Your task to perform on an android device: Check out the new ikea catalog. Image 0: 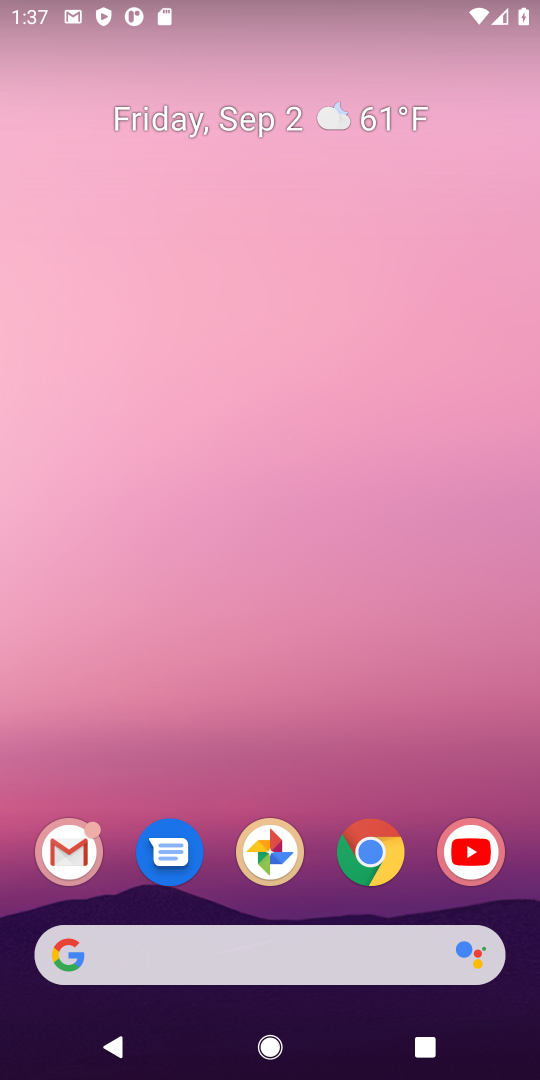
Step 0: click (289, 115)
Your task to perform on an android device: Check out the new ikea catalog. Image 1: 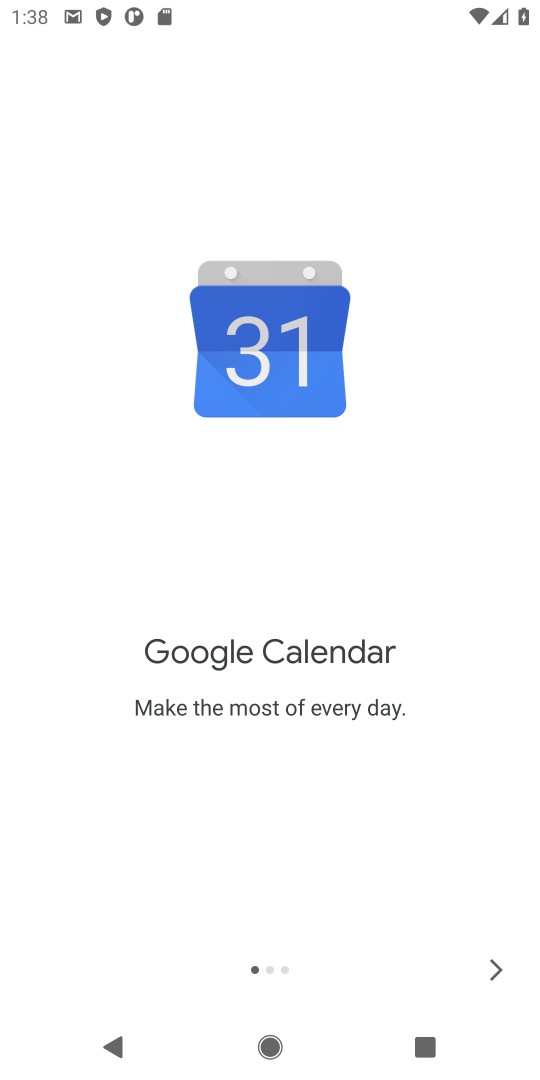
Step 1: click (480, 956)
Your task to perform on an android device: Check out the new ikea catalog. Image 2: 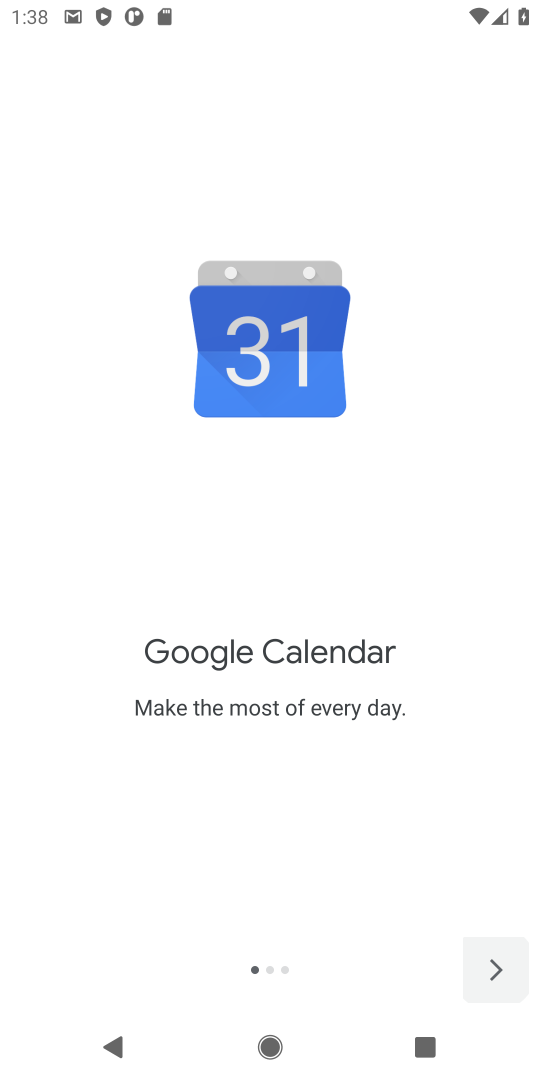
Step 2: click (480, 956)
Your task to perform on an android device: Check out the new ikea catalog. Image 3: 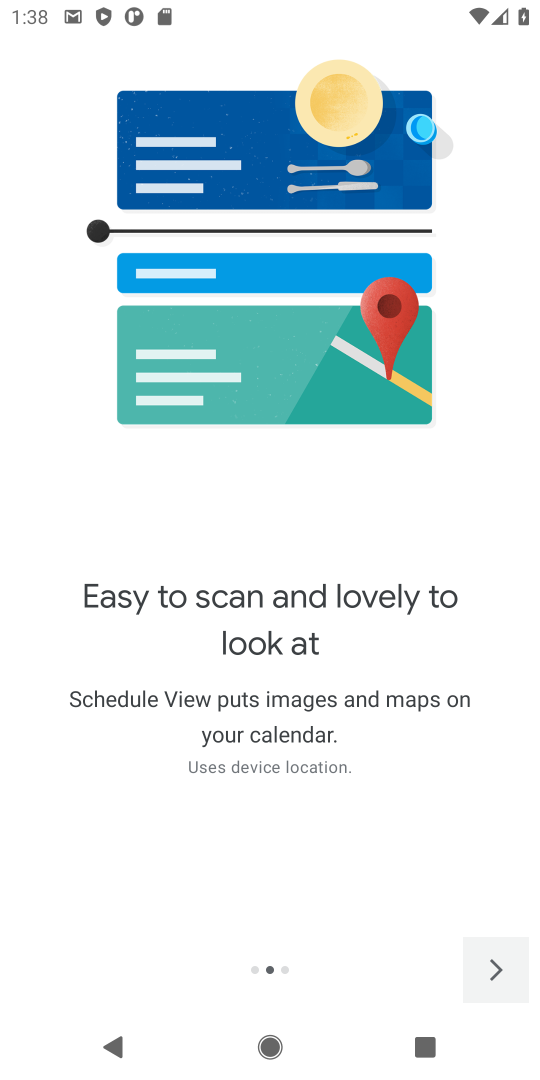
Step 3: press home button
Your task to perform on an android device: Check out the new ikea catalog. Image 4: 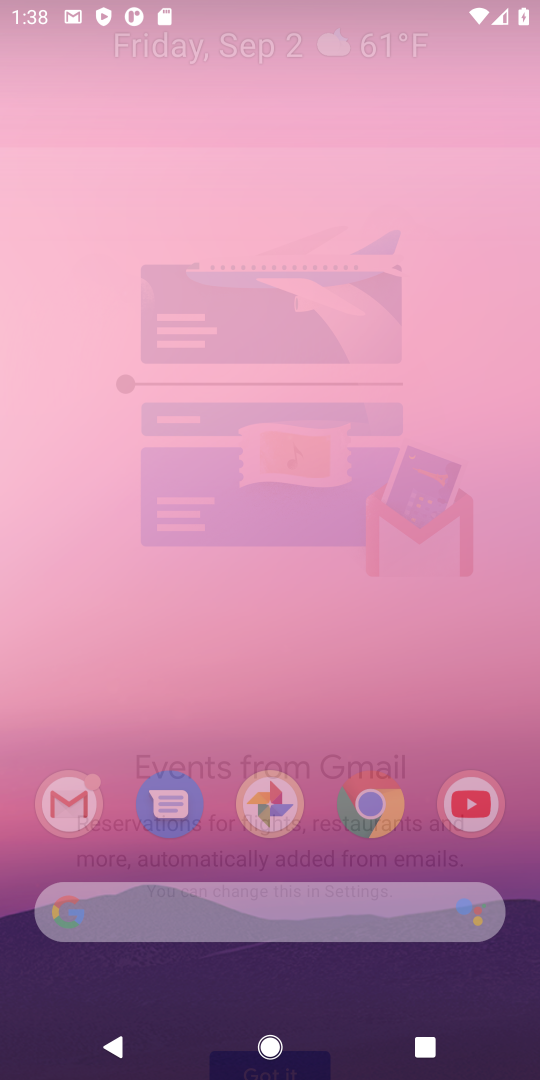
Step 4: press home button
Your task to perform on an android device: Check out the new ikea catalog. Image 5: 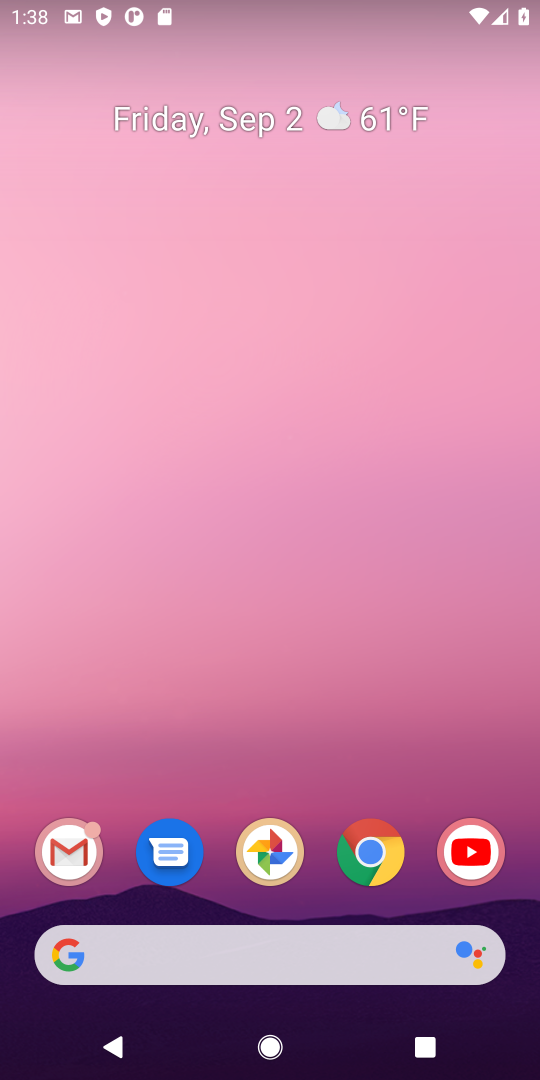
Step 5: drag from (337, 745) to (236, 2)
Your task to perform on an android device: Check out the new ikea catalog. Image 6: 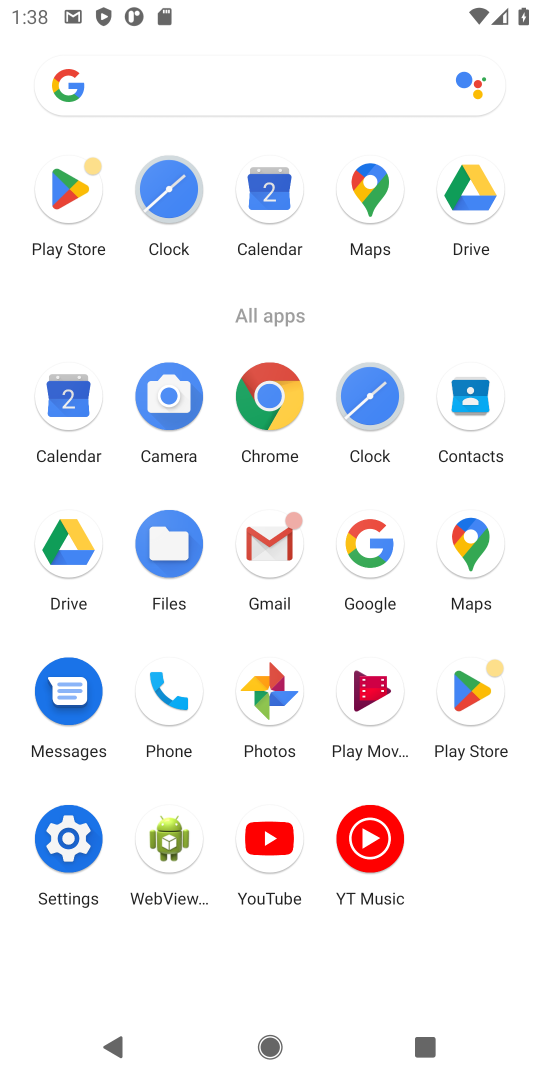
Step 6: click (267, 394)
Your task to perform on an android device: Check out the new ikea catalog. Image 7: 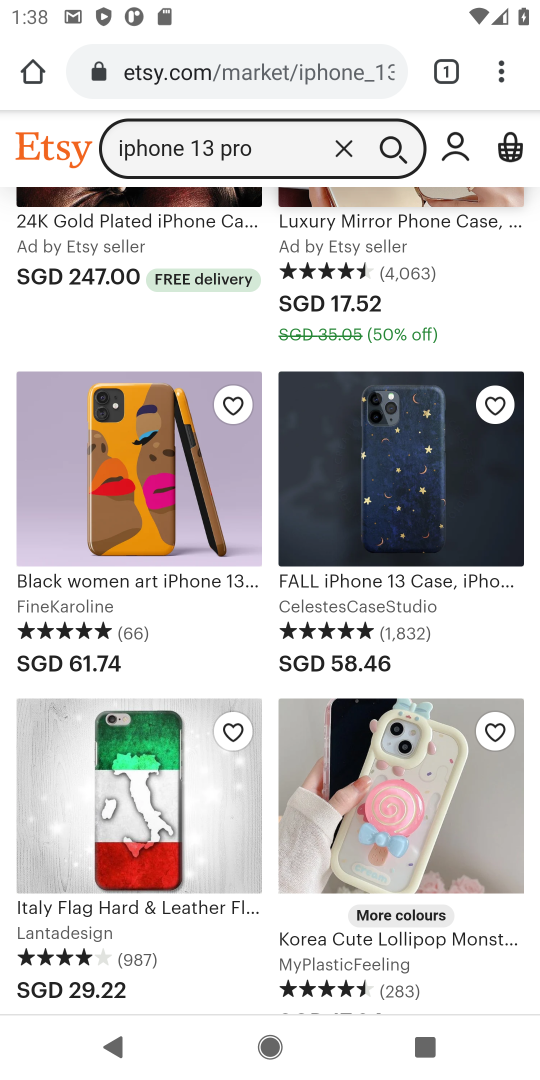
Step 7: click (261, 77)
Your task to perform on an android device: Check out the new ikea catalog. Image 8: 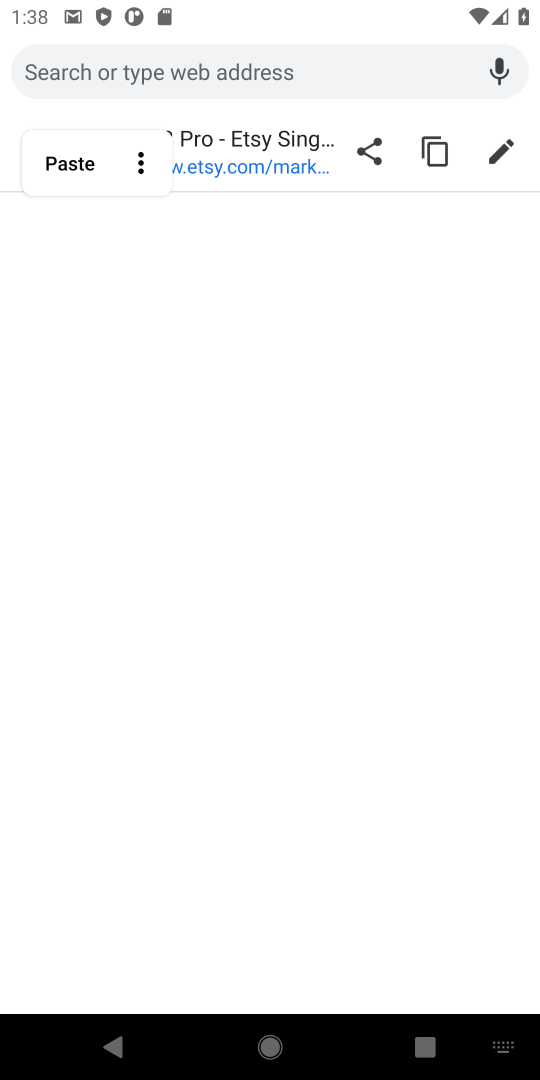
Step 8: type "the new ikea catalog"
Your task to perform on an android device: Check out the new ikea catalog. Image 9: 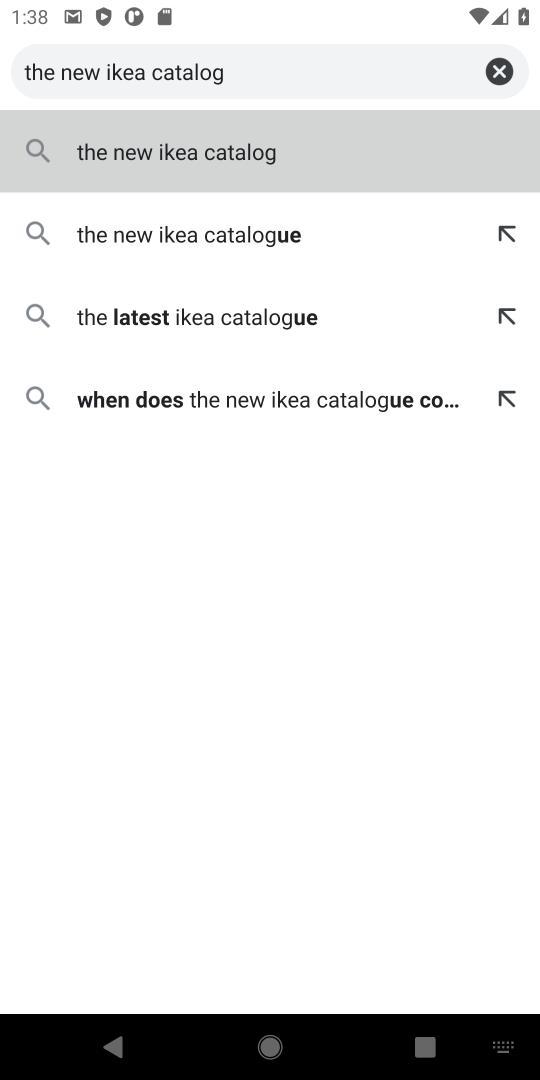
Step 9: press enter
Your task to perform on an android device: Check out the new ikea catalog. Image 10: 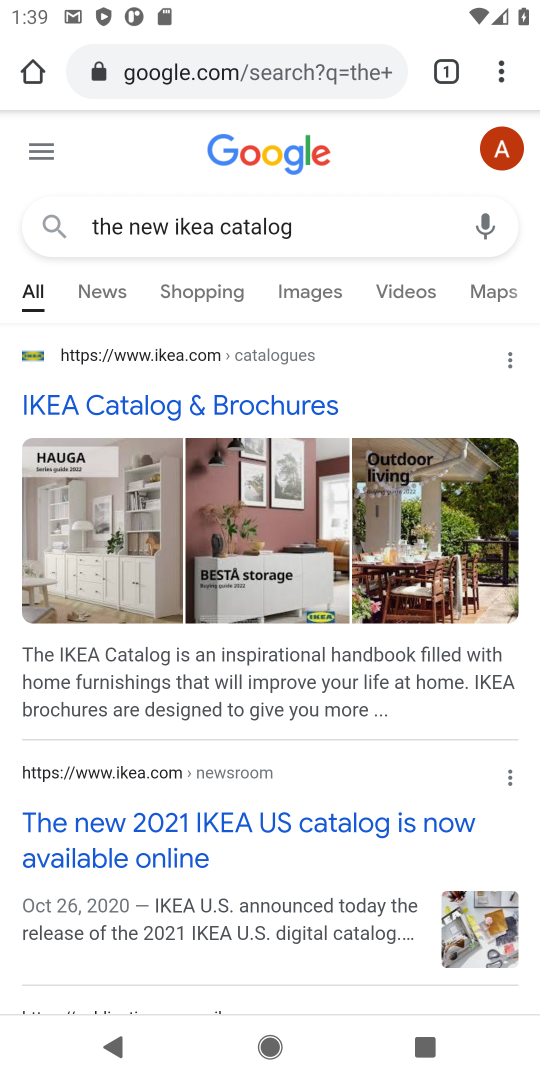
Step 10: click (303, 414)
Your task to perform on an android device: Check out the new ikea catalog. Image 11: 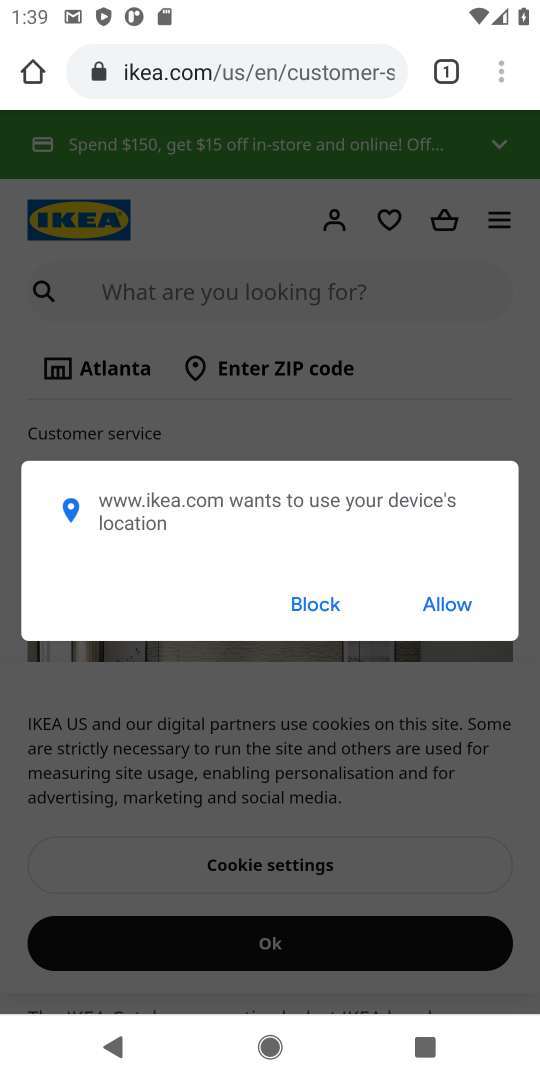
Step 11: click (316, 597)
Your task to perform on an android device: Check out the new ikea catalog. Image 12: 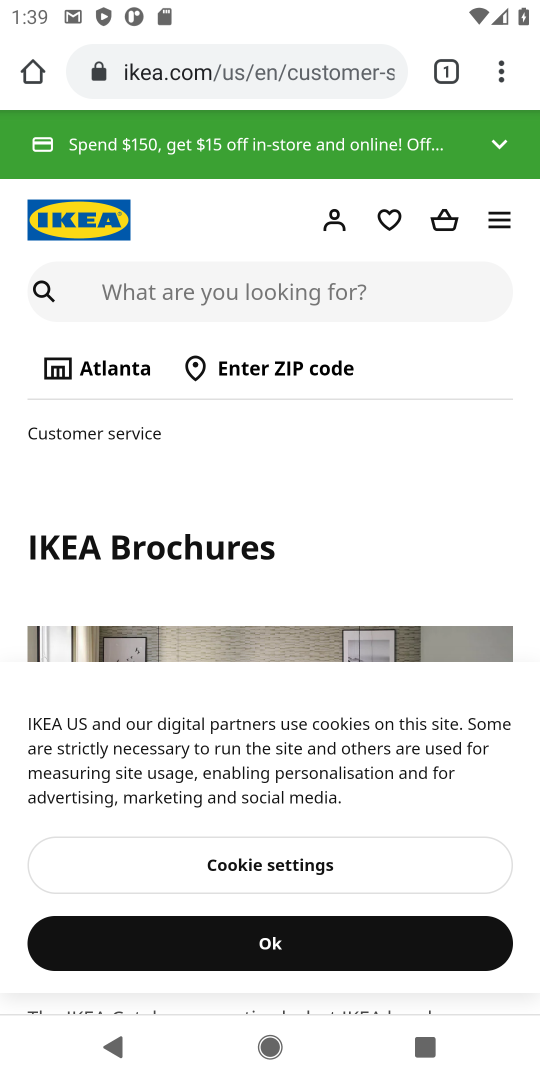
Step 12: drag from (292, 287) to (328, 92)
Your task to perform on an android device: Check out the new ikea catalog. Image 13: 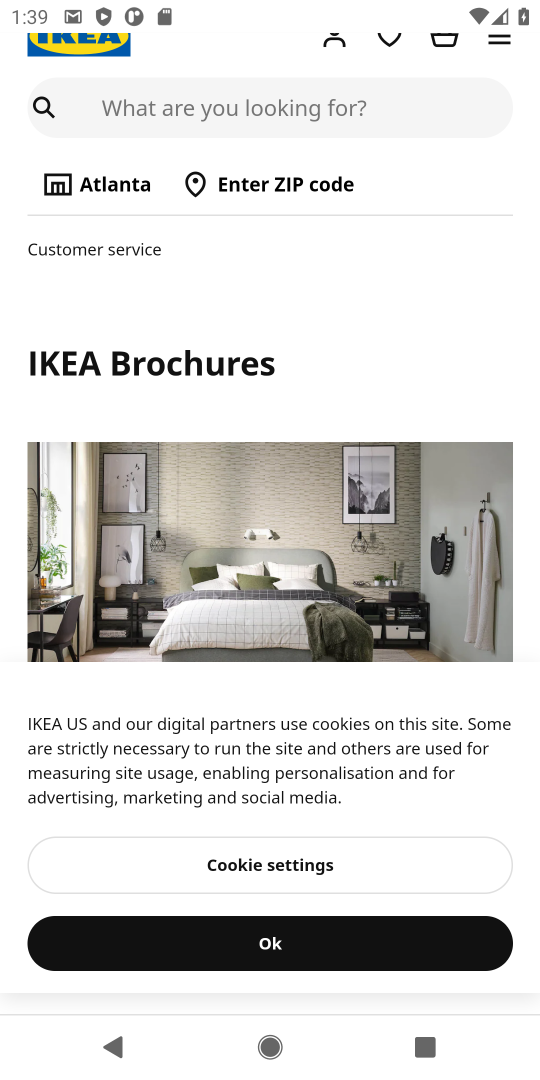
Step 13: click (358, 286)
Your task to perform on an android device: Check out the new ikea catalog. Image 14: 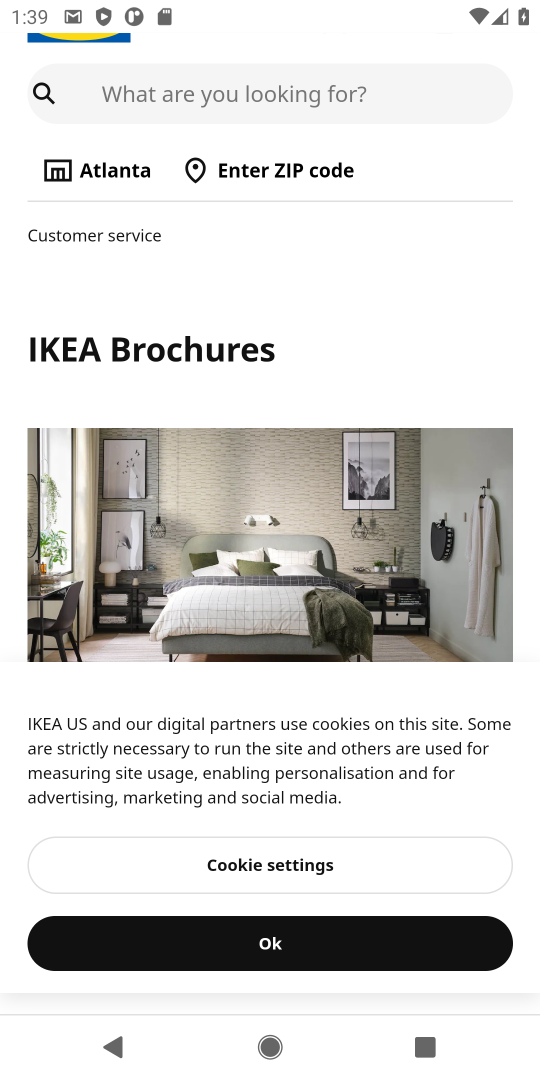
Step 14: task complete